Your task to perform on an android device: Clear the cart on newegg.com. Image 0: 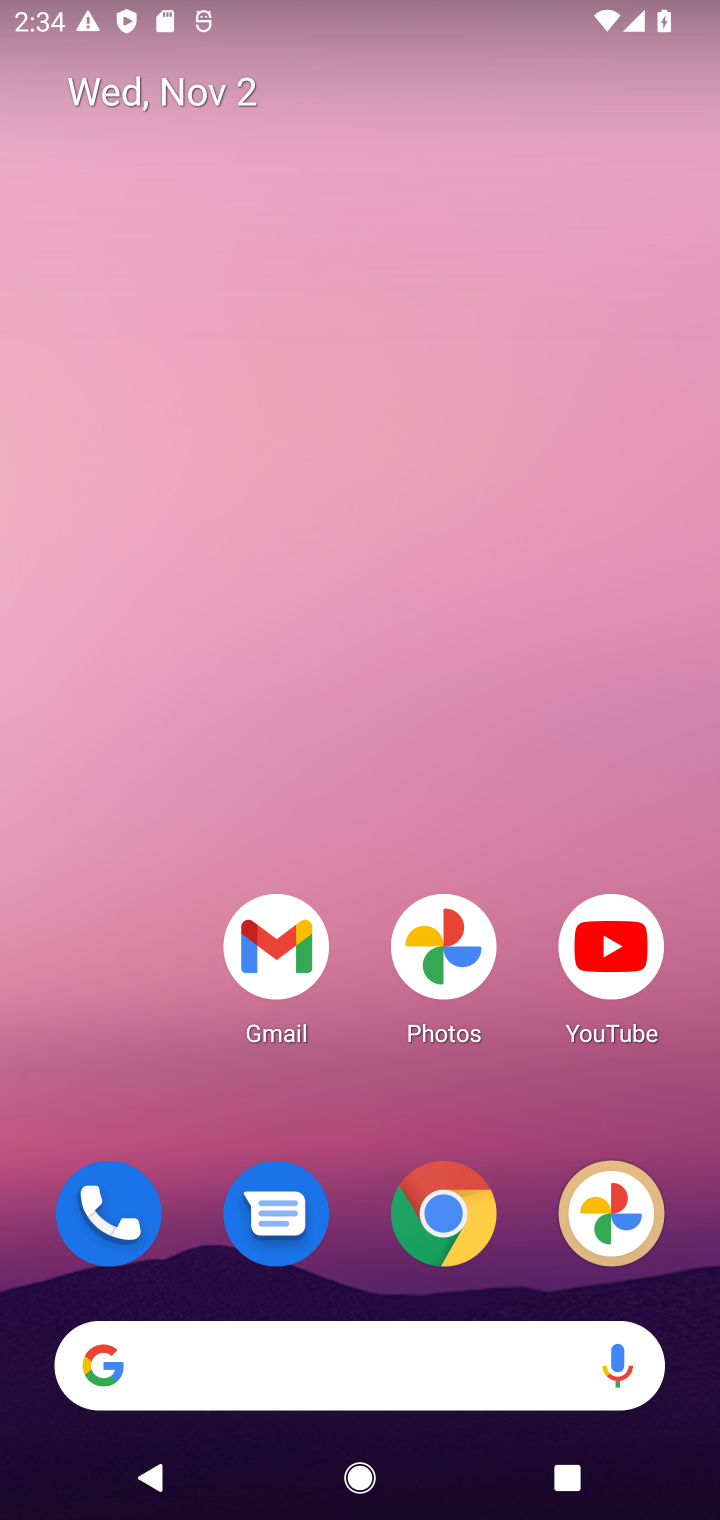
Step 0: click (449, 1241)
Your task to perform on an android device: Clear the cart on newegg.com. Image 1: 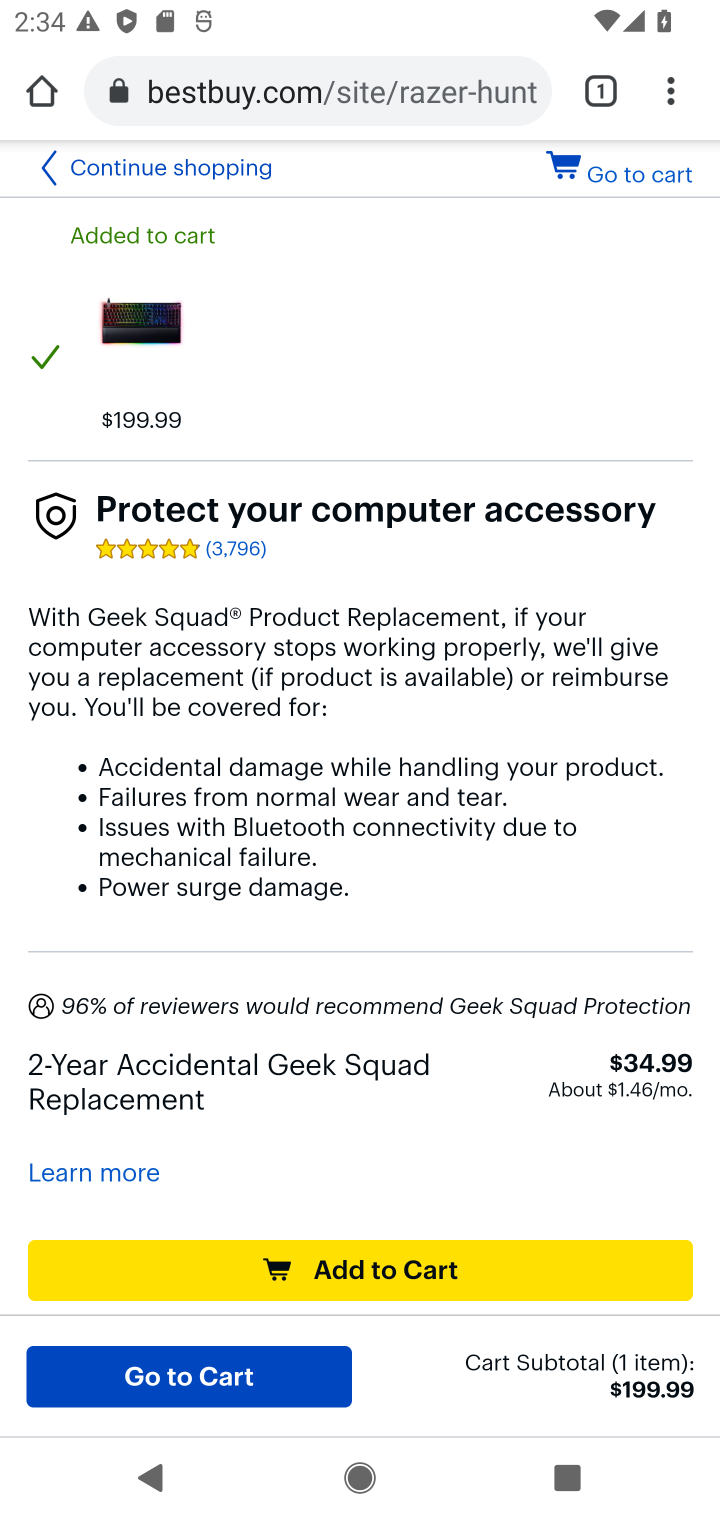
Step 1: click (372, 94)
Your task to perform on an android device: Clear the cart on newegg.com. Image 2: 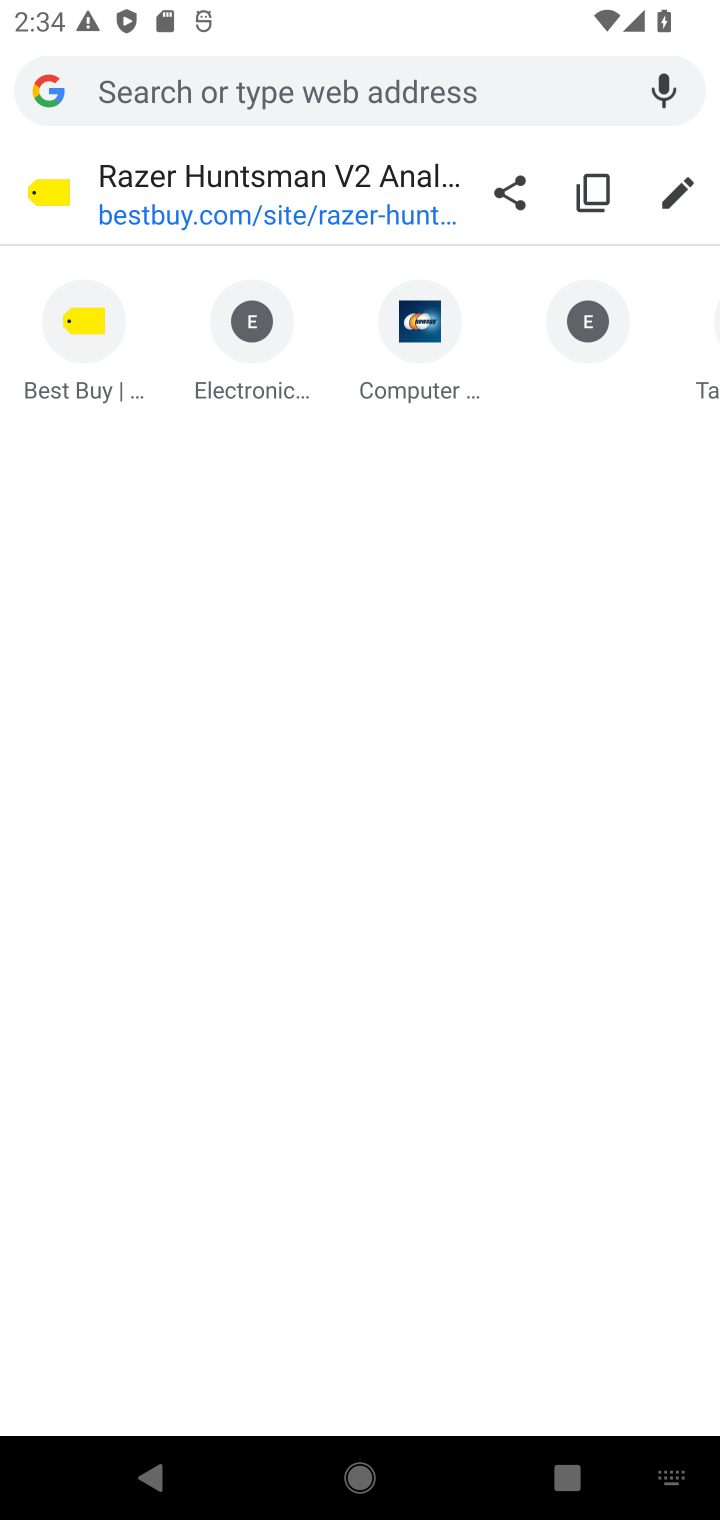
Step 2: type "newegg.com"
Your task to perform on an android device: Clear the cart on newegg.com. Image 3: 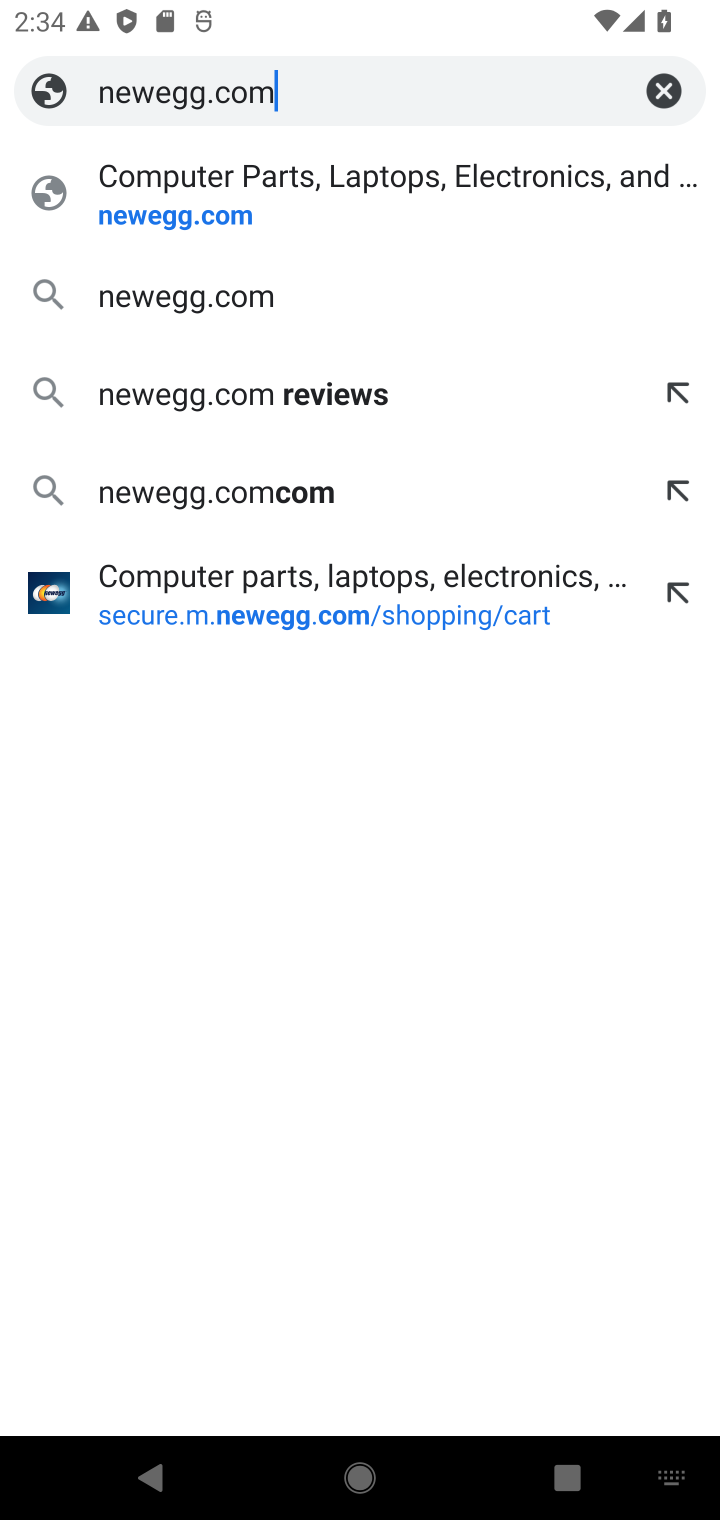
Step 3: type ""
Your task to perform on an android device: Clear the cart on newegg.com. Image 4: 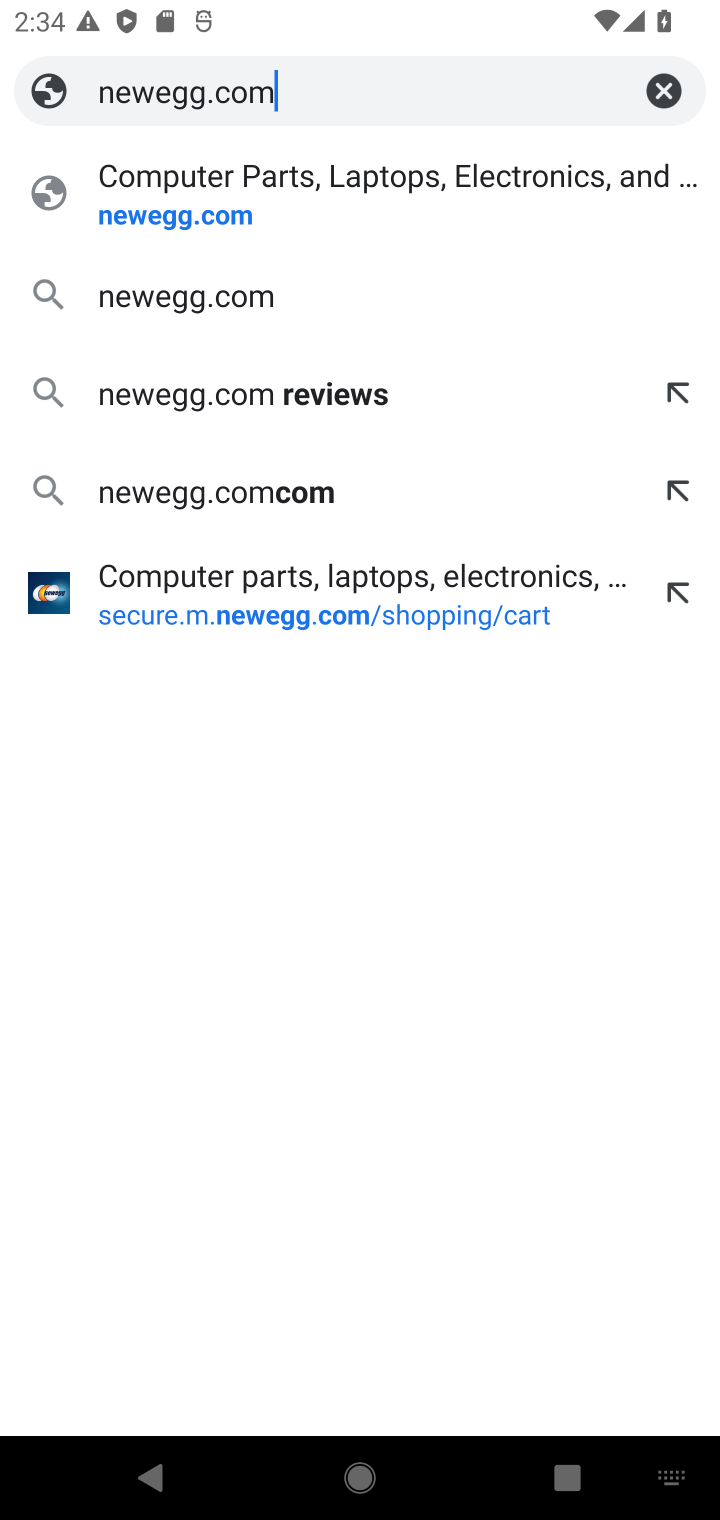
Step 4: click (260, 174)
Your task to perform on an android device: Clear the cart on newegg.com. Image 5: 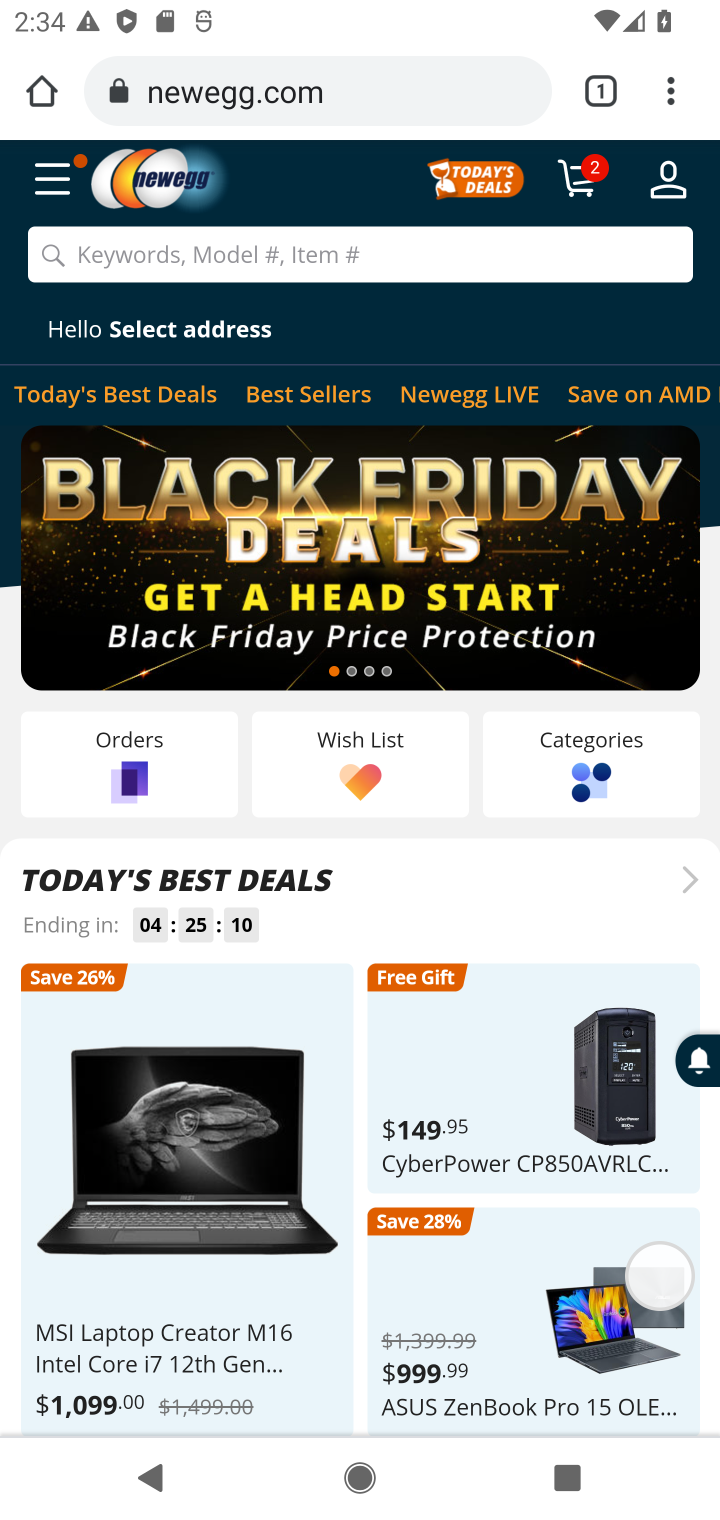
Step 5: click (585, 170)
Your task to perform on an android device: Clear the cart on newegg.com. Image 6: 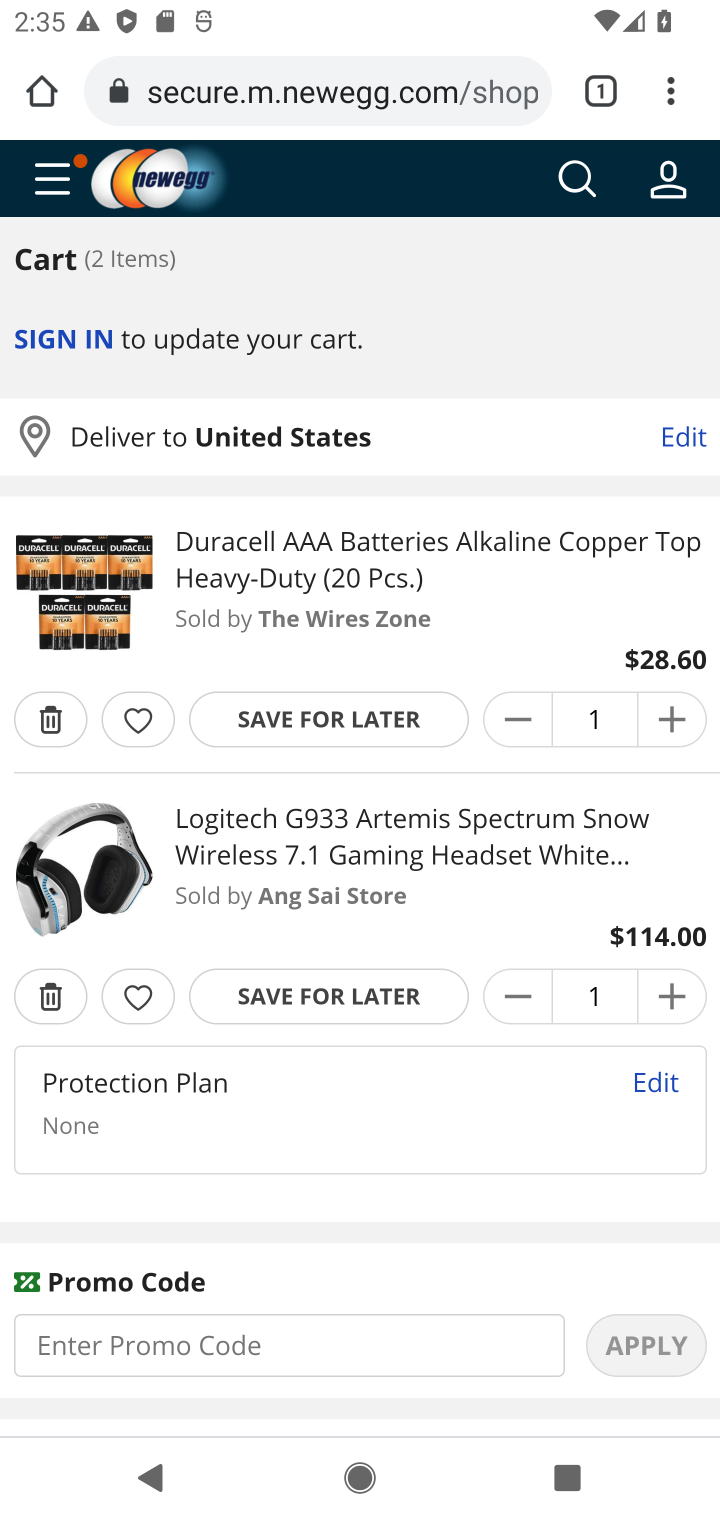
Step 6: click (518, 712)
Your task to perform on an android device: Clear the cart on newegg.com. Image 7: 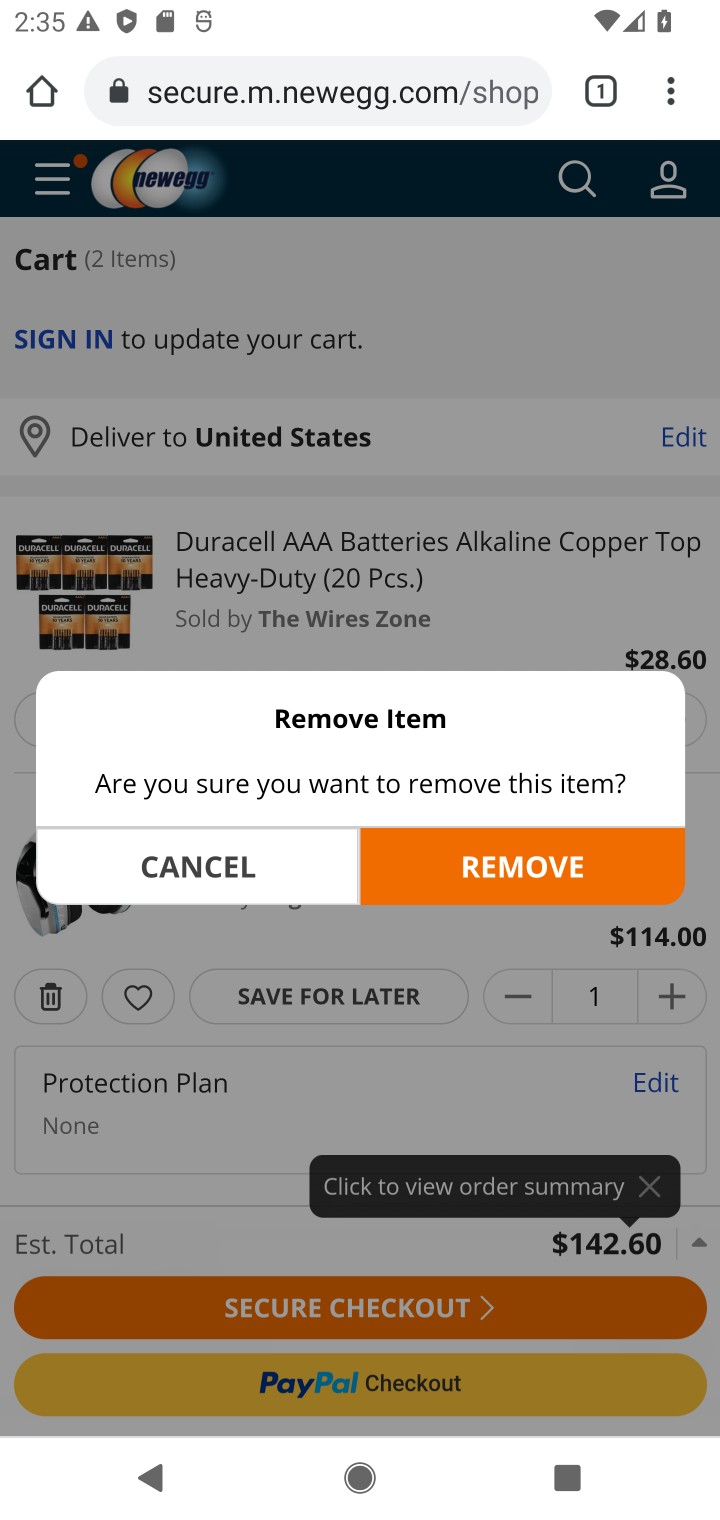
Step 7: click (490, 870)
Your task to perform on an android device: Clear the cart on newegg.com. Image 8: 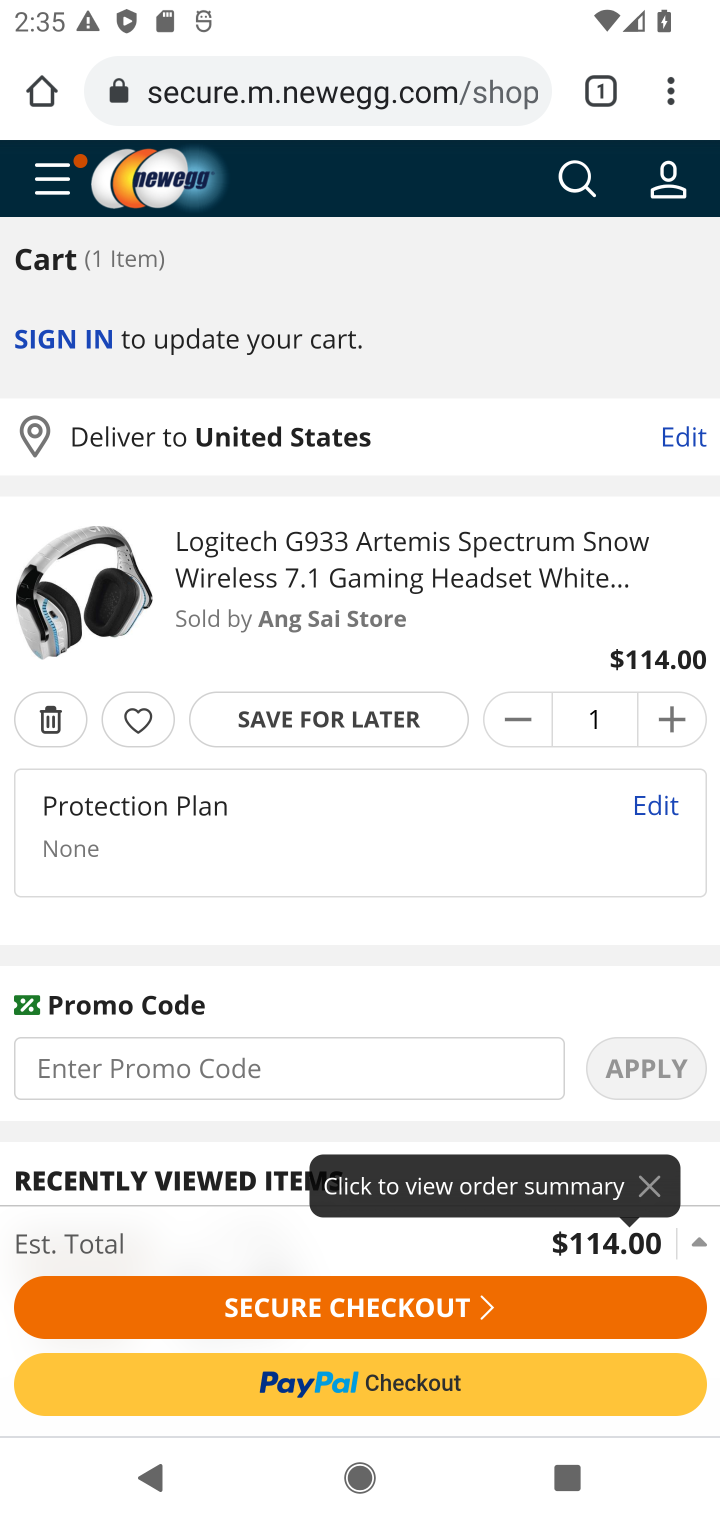
Step 8: click (519, 721)
Your task to perform on an android device: Clear the cart on newegg.com. Image 9: 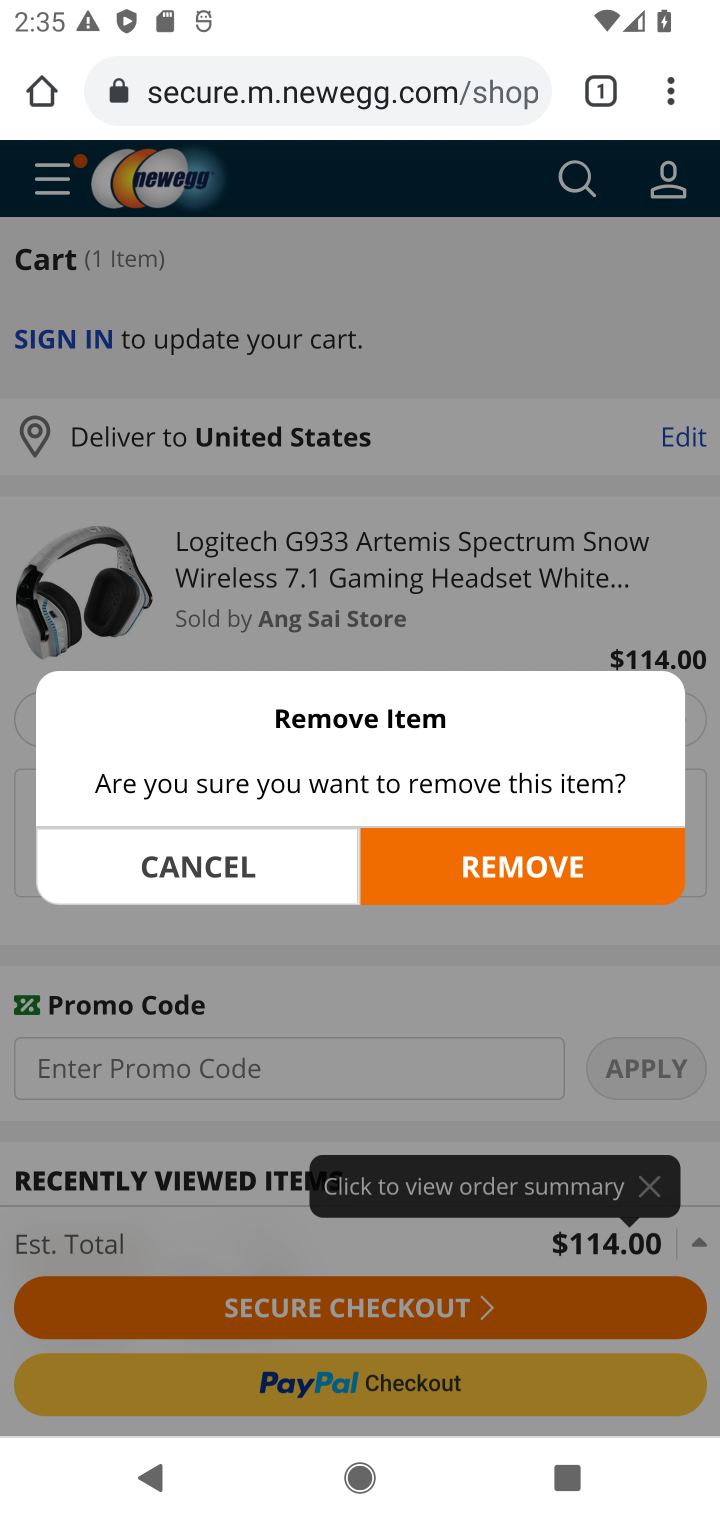
Step 9: click (536, 881)
Your task to perform on an android device: Clear the cart on newegg.com. Image 10: 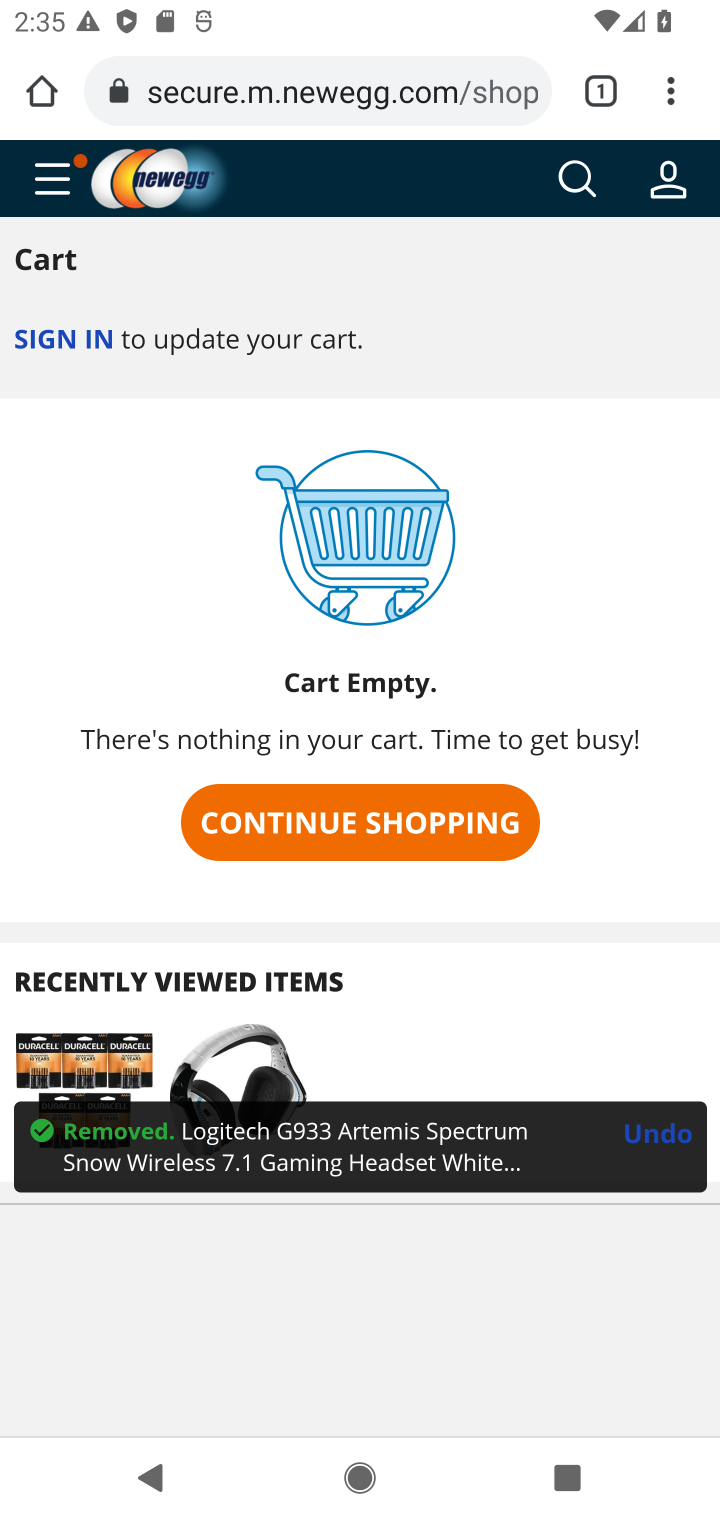
Step 10: task complete